Your task to perform on an android device: Show me popular games on the Play Store Image 0: 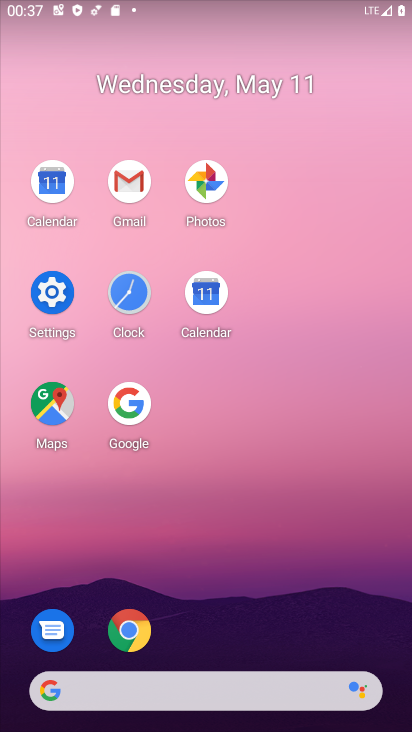
Step 0: drag from (233, 651) to (210, 199)
Your task to perform on an android device: Show me popular games on the Play Store Image 1: 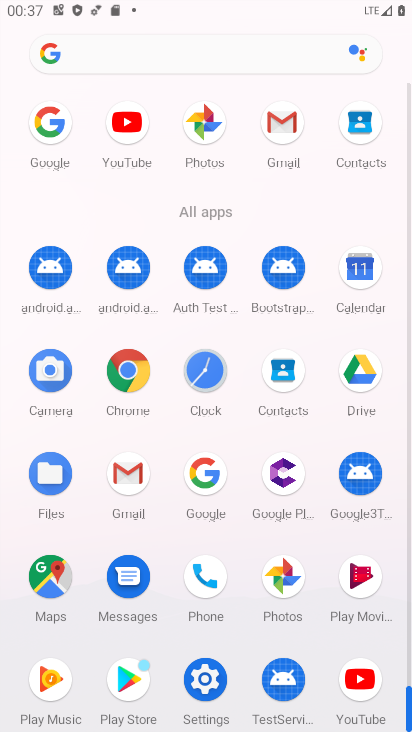
Step 1: click (130, 693)
Your task to perform on an android device: Show me popular games on the Play Store Image 2: 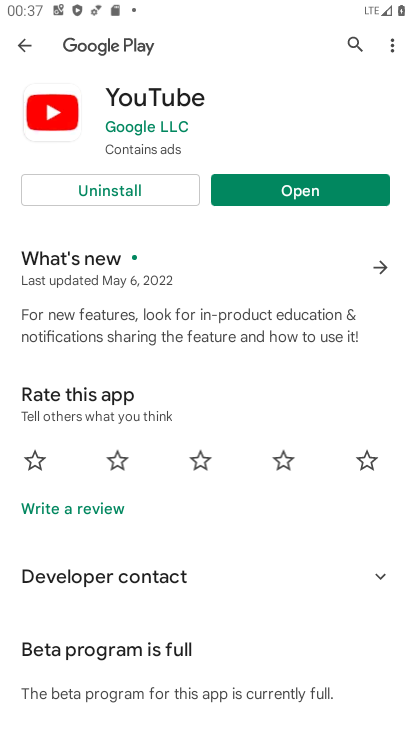
Step 2: click (24, 43)
Your task to perform on an android device: Show me popular games on the Play Store Image 3: 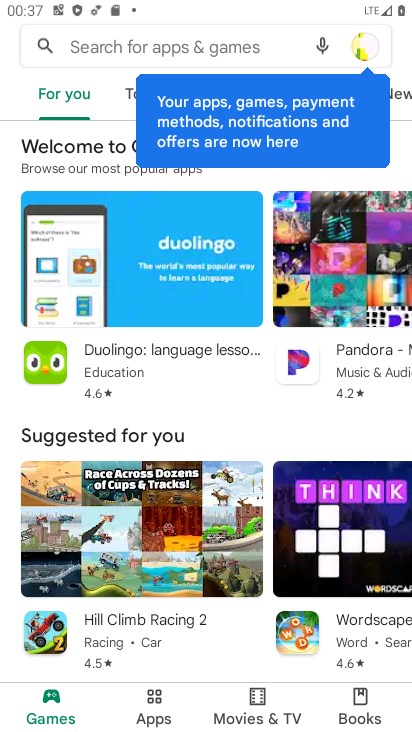
Step 3: click (56, 721)
Your task to perform on an android device: Show me popular games on the Play Store Image 4: 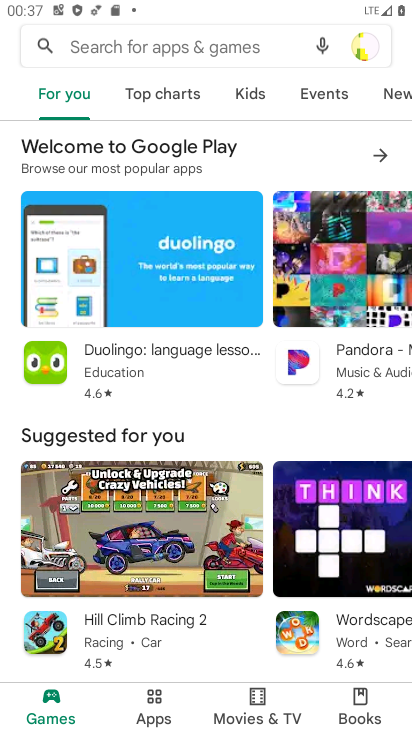
Step 4: click (41, 706)
Your task to perform on an android device: Show me popular games on the Play Store Image 5: 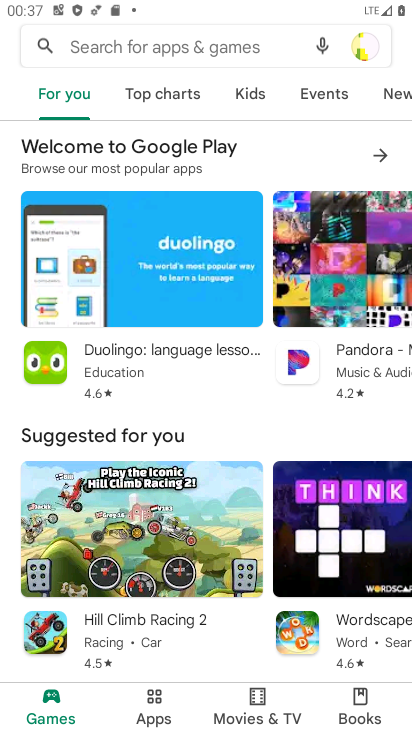
Step 5: drag from (359, 90) to (0, 95)
Your task to perform on an android device: Show me popular games on the Play Store Image 6: 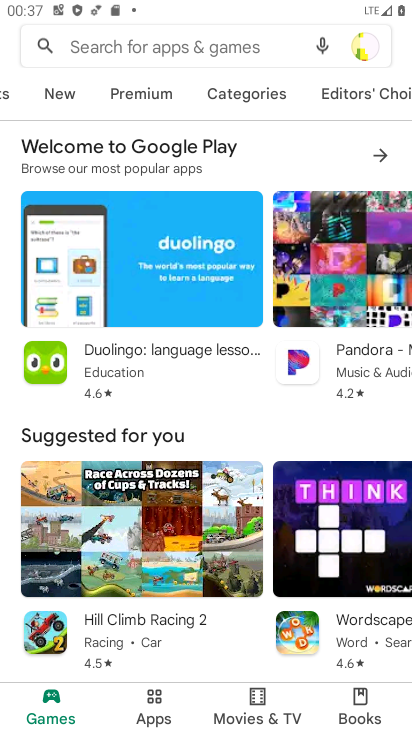
Step 6: drag from (359, 100) to (9, 137)
Your task to perform on an android device: Show me popular games on the Play Store Image 7: 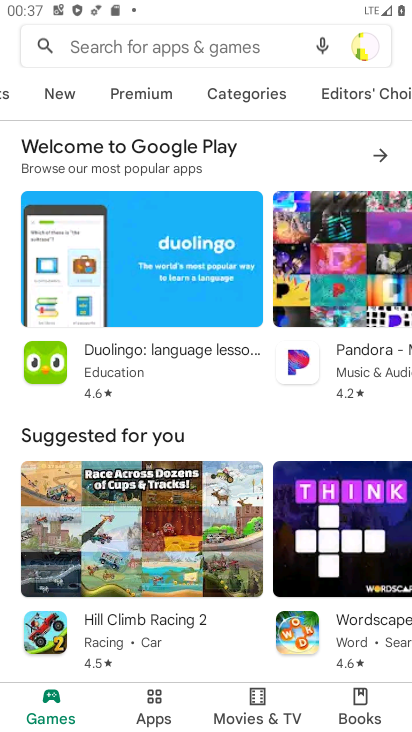
Step 7: drag from (317, 99) to (78, 114)
Your task to perform on an android device: Show me popular games on the Play Store Image 8: 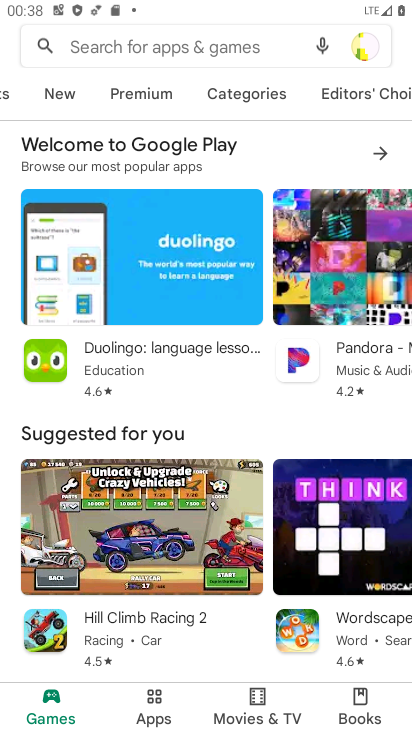
Step 8: click (59, 704)
Your task to perform on an android device: Show me popular games on the Play Store Image 9: 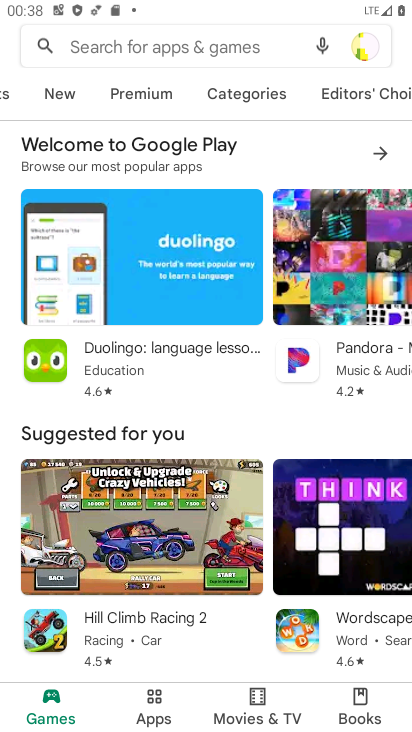
Step 9: drag from (208, 645) to (249, 172)
Your task to perform on an android device: Show me popular games on the Play Store Image 10: 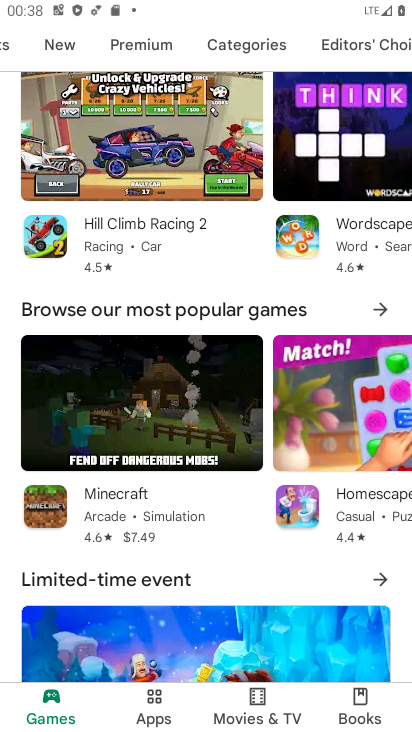
Step 10: click (316, 306)
Your task to perform on an android device: Show me popular games on the Play Store Image 11: 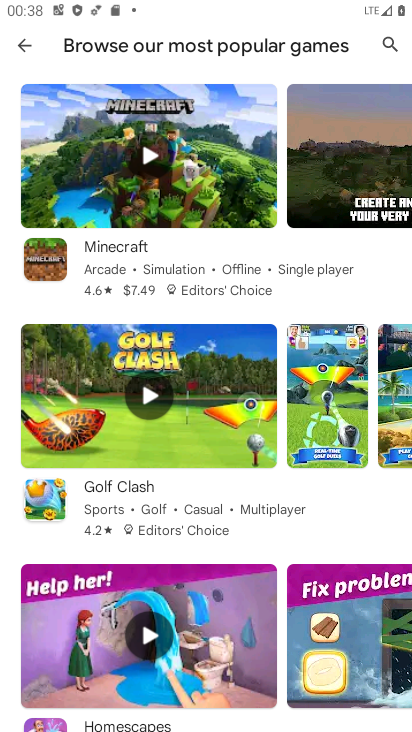
Step 11: task complete